Your task to perform on an android device: Go to eBay Image 0: 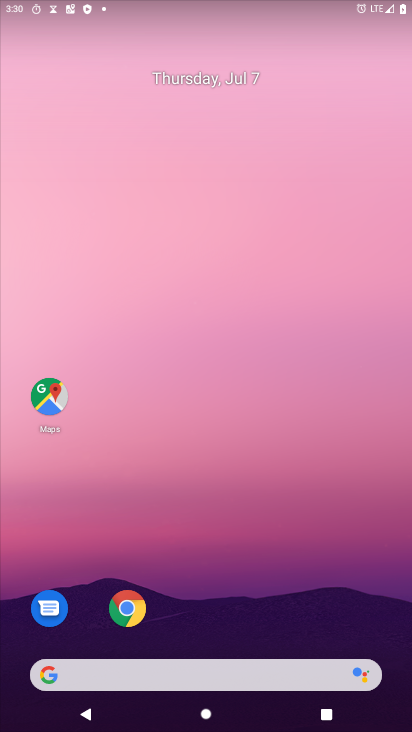
Step 0: click (125, 613)
Your task to perform on an android device: Go to eBay Image 1: 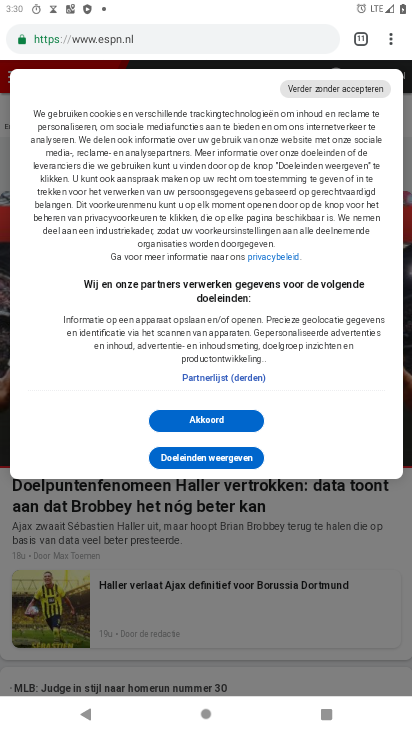
Step 1: click (205, 416)
Your task to perform on an android device: Go to eBay Image 2: 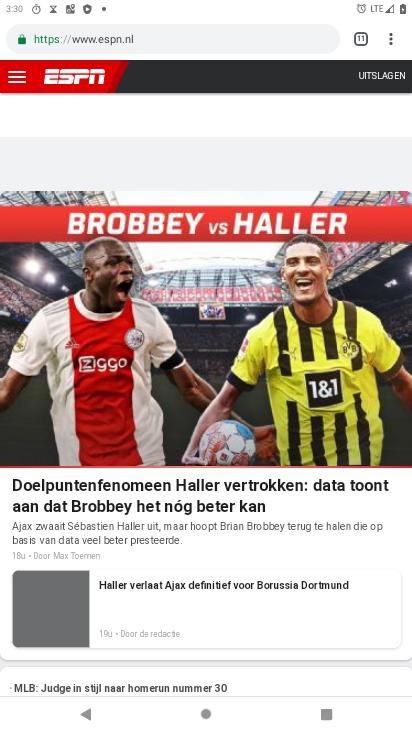
Step 2: click (392, 38)
Your task to perform on an android device: Go to eBay Image 3: 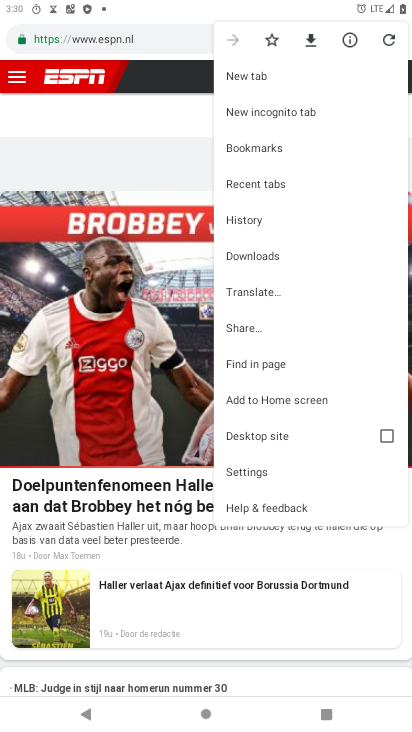
Step 3: click (237, 76)
Your task to perform on an android device: Go to eBay Image 4: 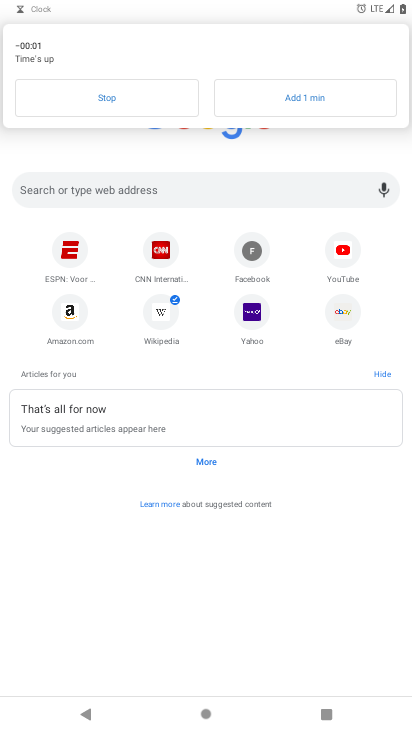
Step 4: click (343, 312)
Your task to perform on an android device: Go to eBay Image 5: 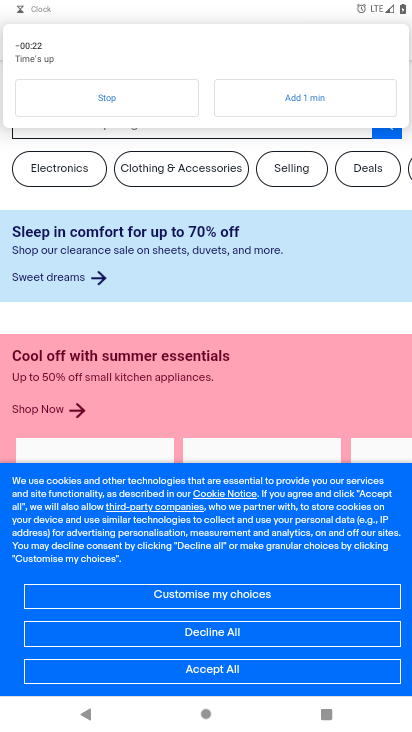
Step 5: task complete